Your task to perform on an android device: toggle wifi Image 0: 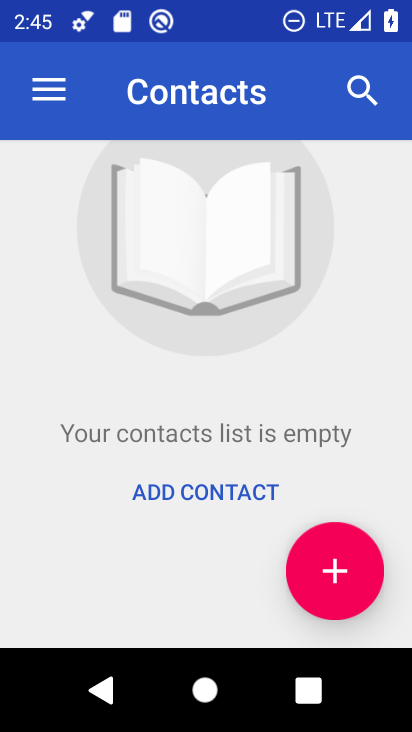
Step 0: press home button
Your task to perform on an android device: toggle wifi Image 1: 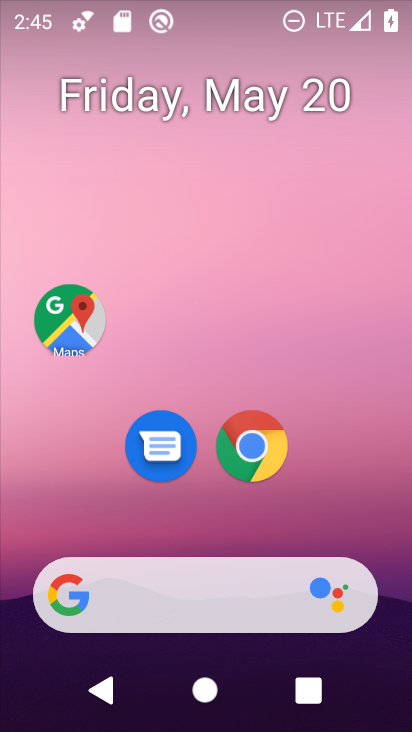
Step 1: drag from (330, 527) to (350, 2)
Your task to perform on an android device: toggle wifi Image 2: 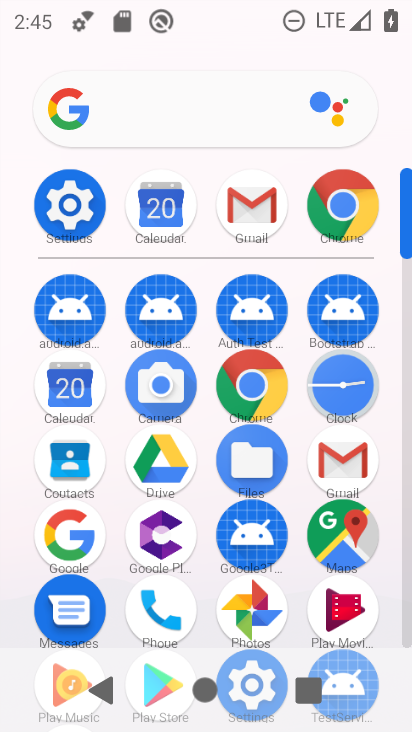
Step 2: click (69, 203)
Your task to perform on an android device: toggle wifi Image 3: 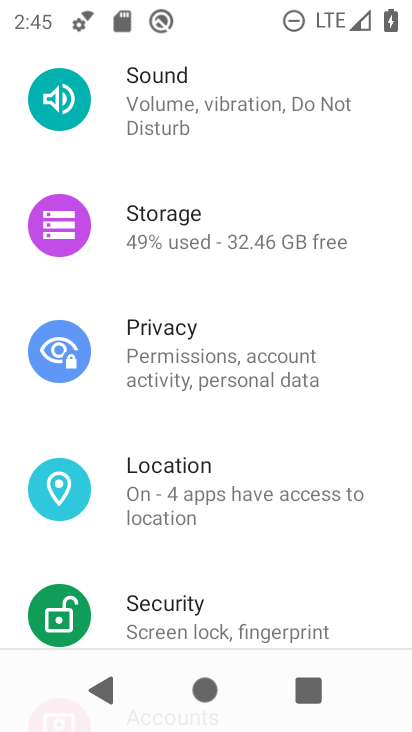
Step 3: drag from (304, 189) to (303, 550)
Your task to perform on an android device: toggle wifi Image 4: 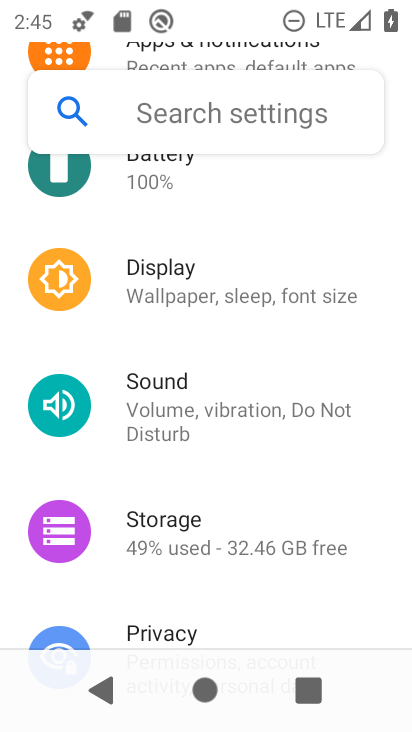
Step 4: drag from (280, 254) to (322, 480)
Your task to perform on an android device: toggle wifi Image 5: 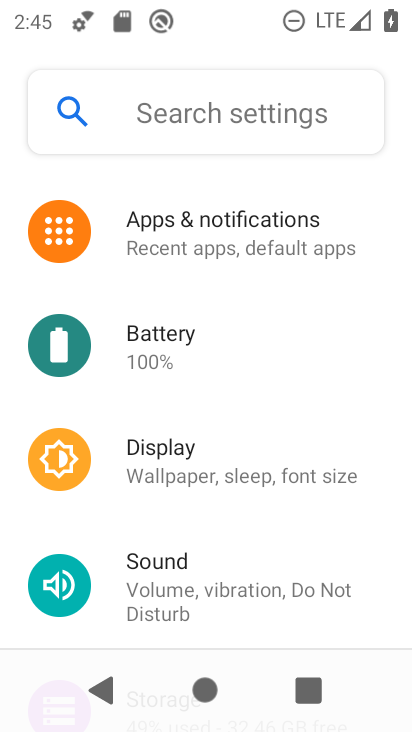
Step 5: drag from (308, 266) to (303, 558)
Your task to perform on an android device: toggle wifi Image 6: 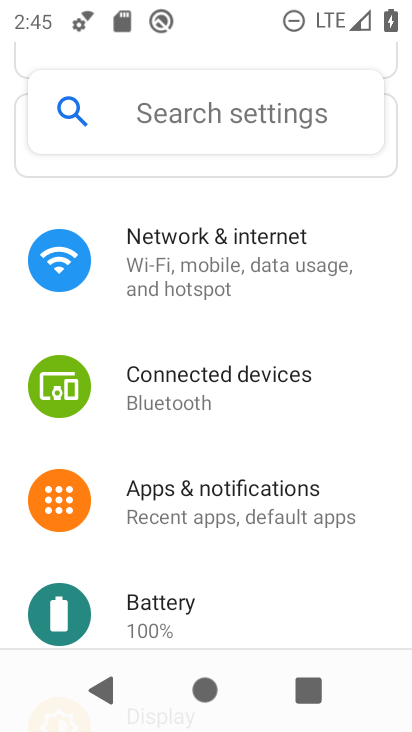
Step 6: click (197, 246)
Your task to perform on an android device: toggle wifi Image 7: 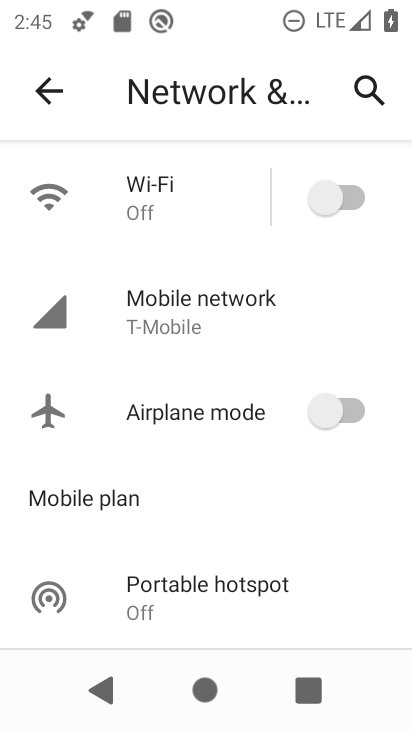
Step 7: click (314, 204)
Your task to perform on an android device: toggle wifi Image 8: 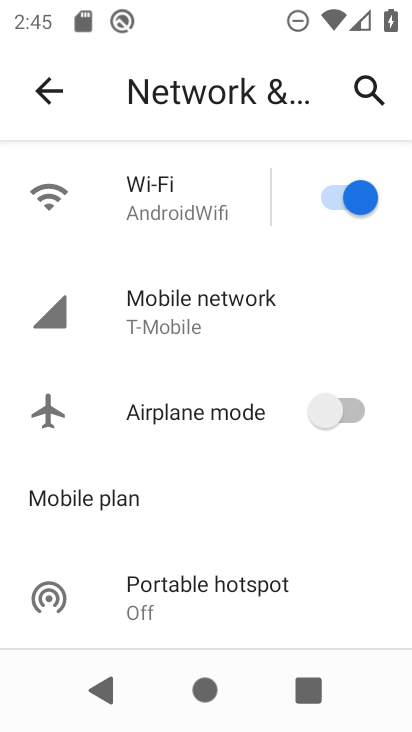
Step 8: task complete